Your task to perform on an android device: Open internet settings Image 0: 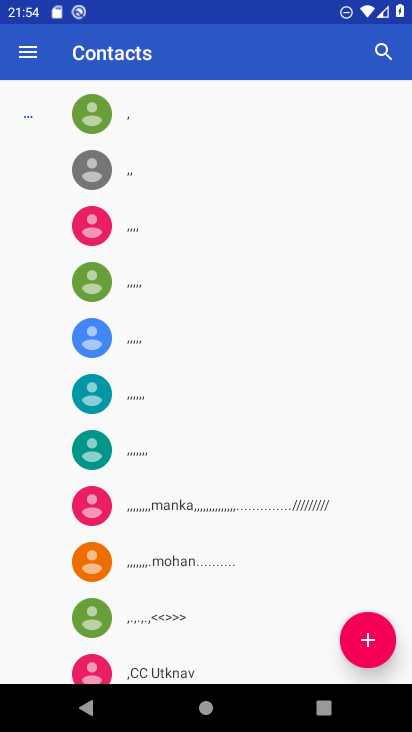
Step 0: press home button
Your task to perform on an android device: Open internet settings Image 1: 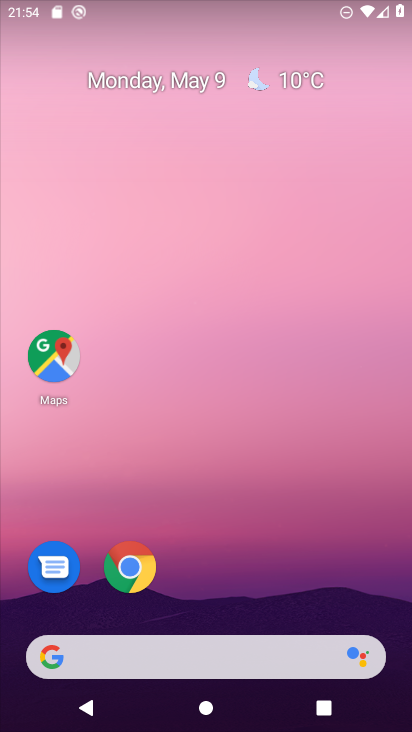
Step 1: drag from (260, 565) to (272, 42)
Your task to perform on an android device: Open internet settings Image 2: 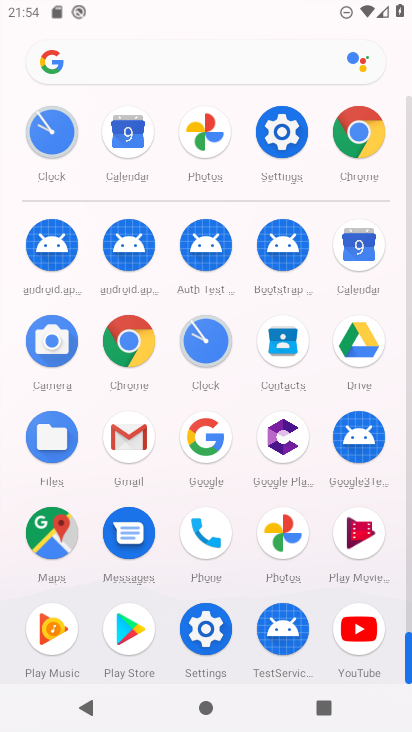
Step 2: click (275, 120)
Your task to perform on an android device: Open internet settings Image 3: 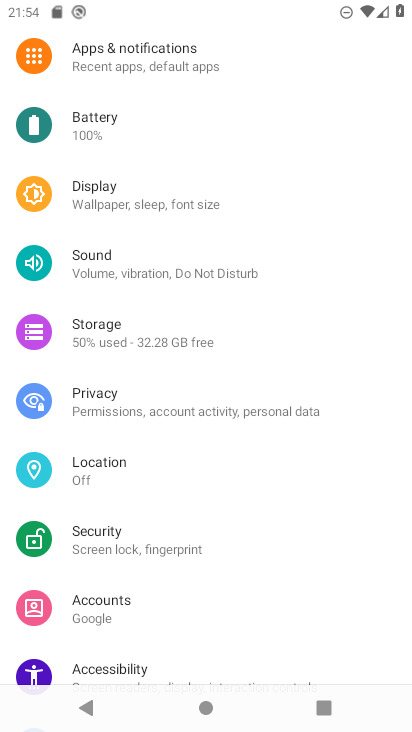
Step 3: drag from (169, 122) to (185, 518)
Your task to perform on an android device: Open internet settings Image 4: 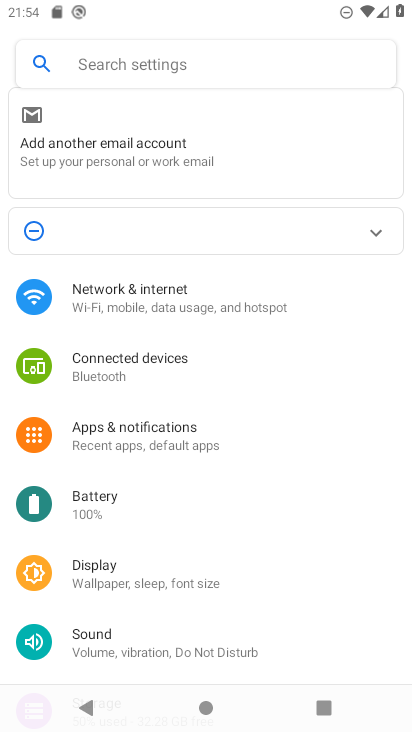
Step 4: click (206, 293)
Your task to perform on an android device: Open internet settings Image 5: 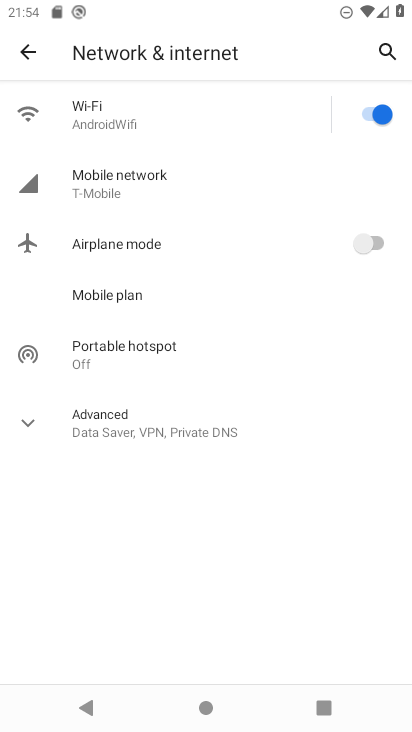
Step 5: task complete